Your task to perform on an android device: Go to Google maps Image 0: 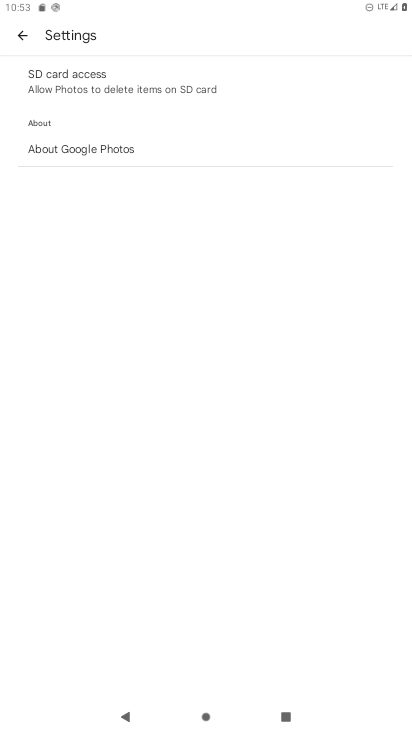
Step 0: press home button
Your task to perform on an android device: Go to Google maps Image 1: 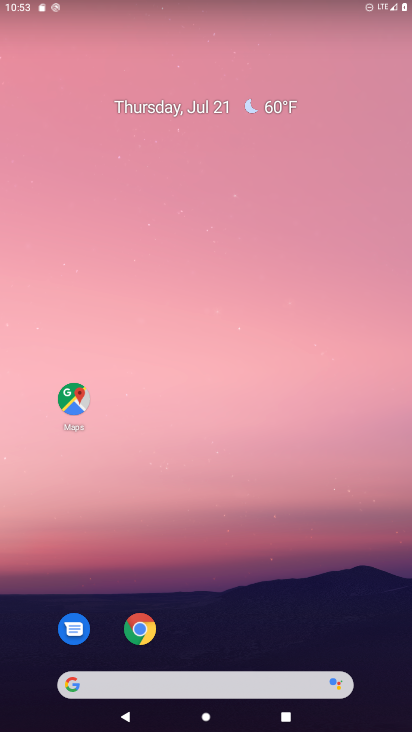
Step 1: click (68, 406)
Your task to perform on an android device: Go to Google maps Image 2: 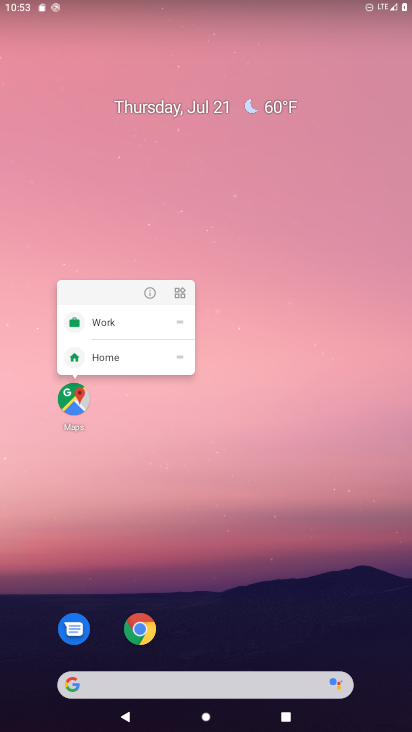
Step 2: click (68, 406)
Your task to perform on an android device: Go to Google maps Image 3: 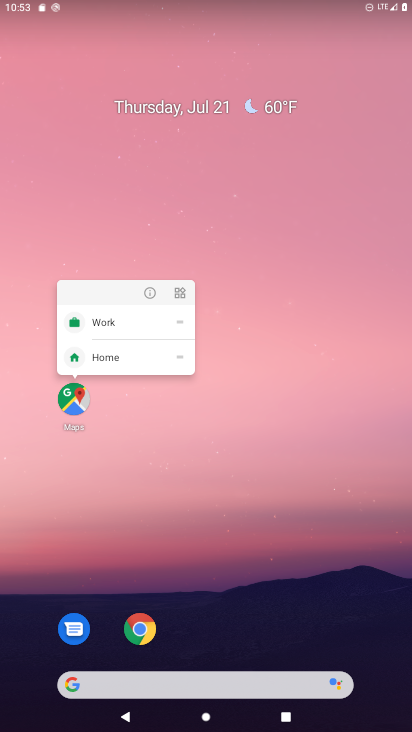
Step 3: click (82, 399)
Your task to perform on an android device: Go to Google maps Image 4: 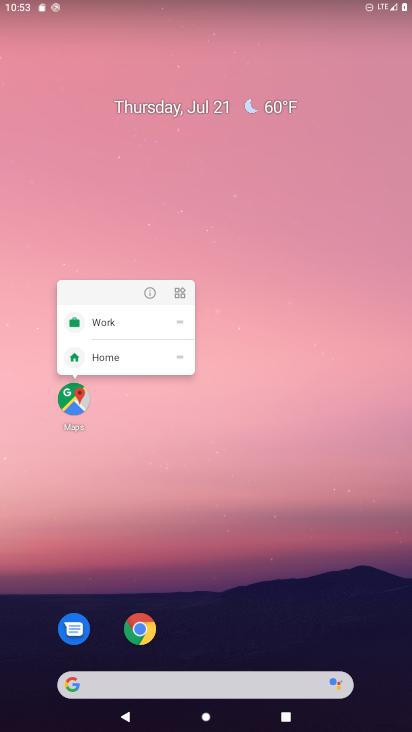
Step 4: click (75, 397)
Your task to perform on an android device: Go to Google maps Image 5: 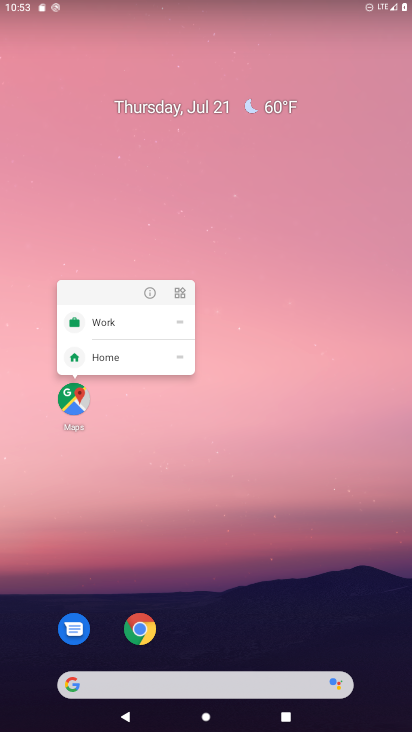
Step 5: click (75, 397)
Your task to perform on an android device: Go to Google maps Image 6: 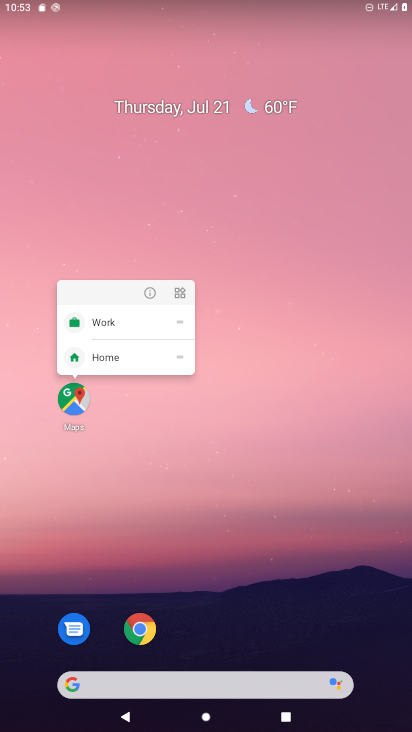
Step 6: click (75, 397)
Your task to perform on an android device: Go to Google maps Image 7: 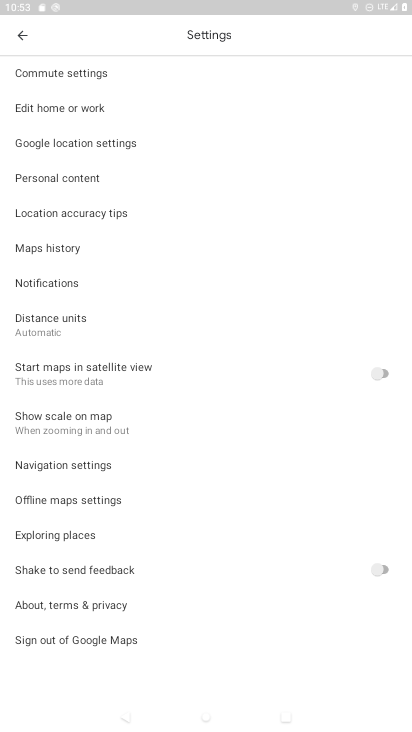
Step 7: click (18, 35)
Your task to perform on an android device: Go to Google maps Image 8: 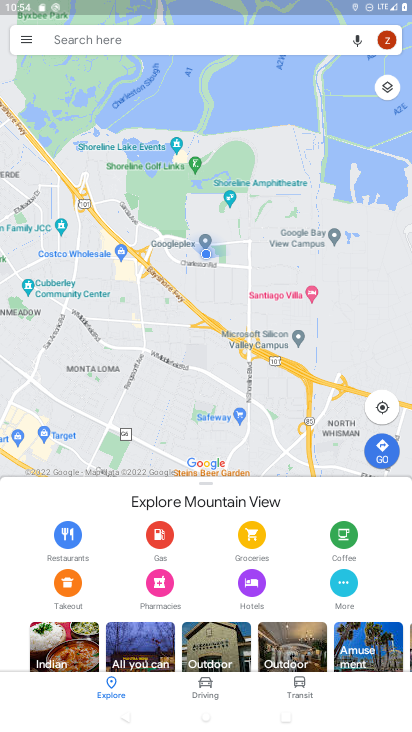
Step 8: task complete